Your task to perform on an android device: Open Google Maps Image 0: 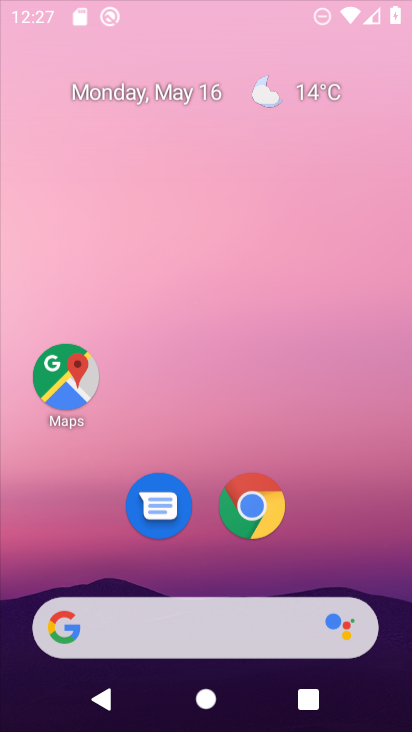
Step 0: click (299, 180)
Your task to perform on an android device: Open Google Maps Image 1: 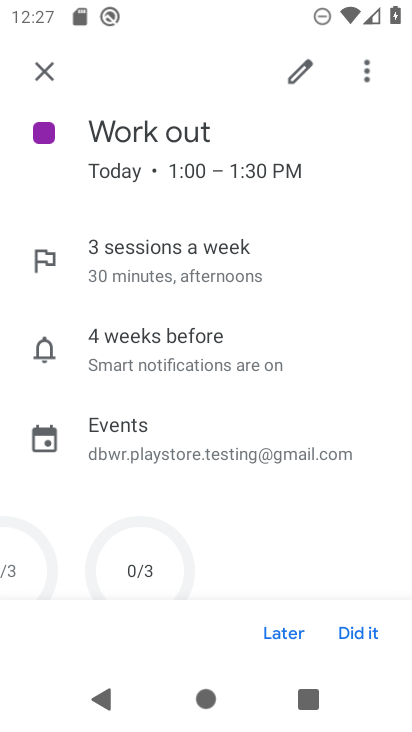
Step 1: press home button
Your task to perform on an android device: Open Google Maps Image 2: 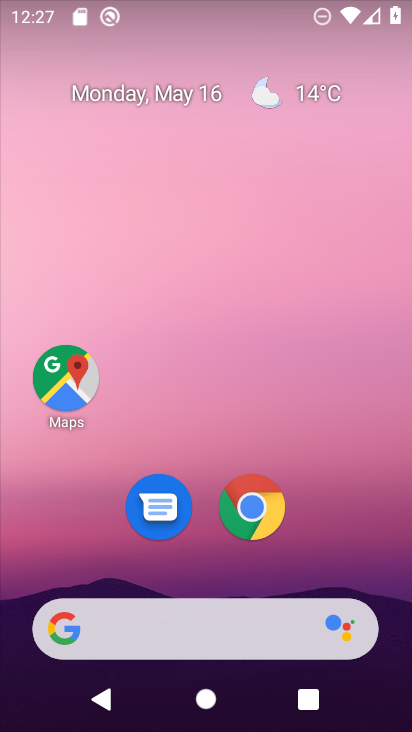
Step 2: click (64, 394)
Your task to perform on an android device: Open Google Maps Image 3: 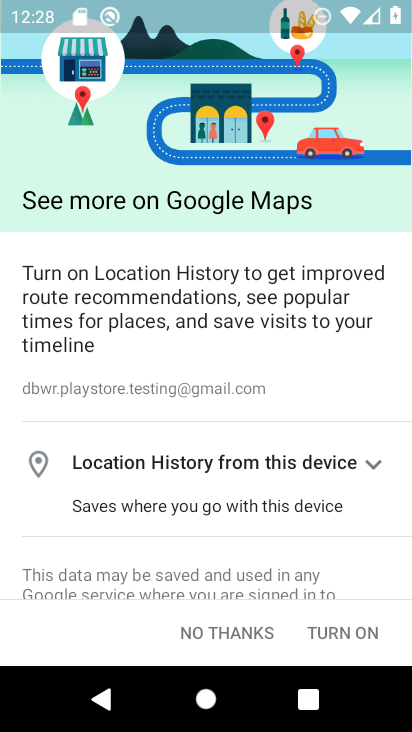
Step 3: task complete